Your task to perform on an android device: Go to Google maps Image 0: 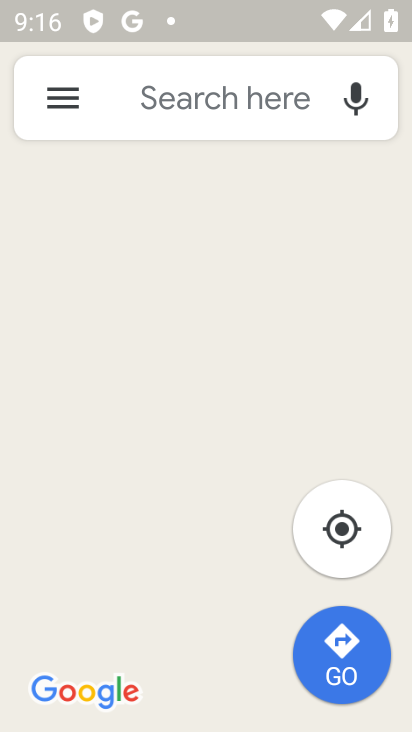
Step 0: press home button
Your task to perform on an android device: Go to Google maps Image 1: 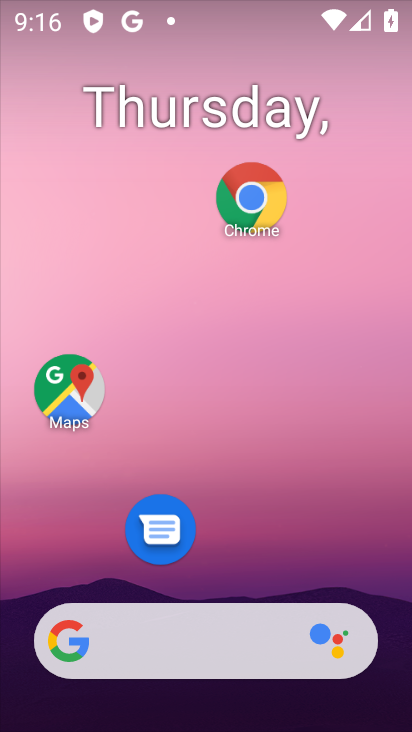
Step 1: click (71, 403)
Your task to perform on an android device: Go to Google maps Image 2: 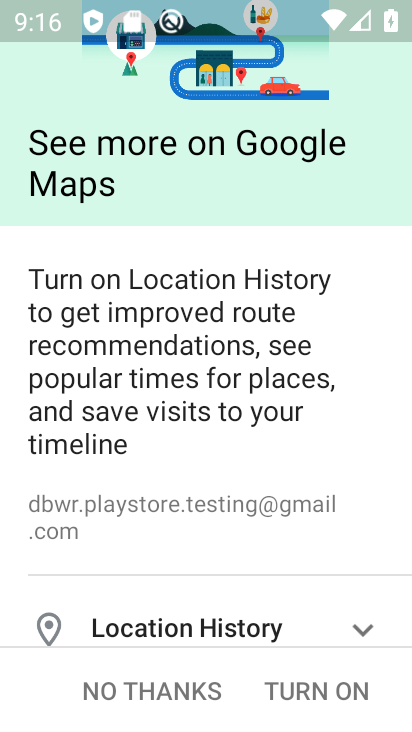
Step 2: task complete